Your task to perform on an android device: delete the emails in spam in the gmail app Image 0: 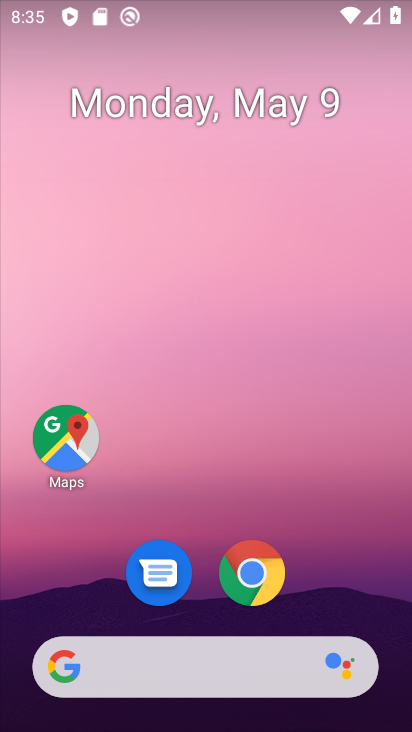
Step 0: drag from (312, 614) to (304, 38)
Your task to perform on an android device: delete the emails in spam in the gmail app Image 1: 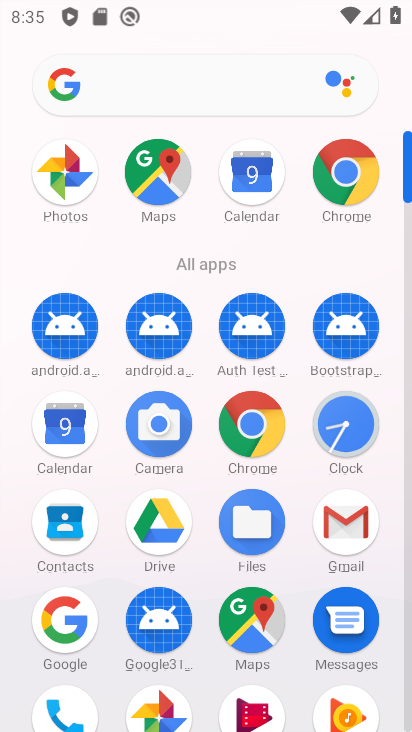
Step 1: click (344, 509)
Your task to perform on an android device: delete the emails in spam in the gmail app Image 2: 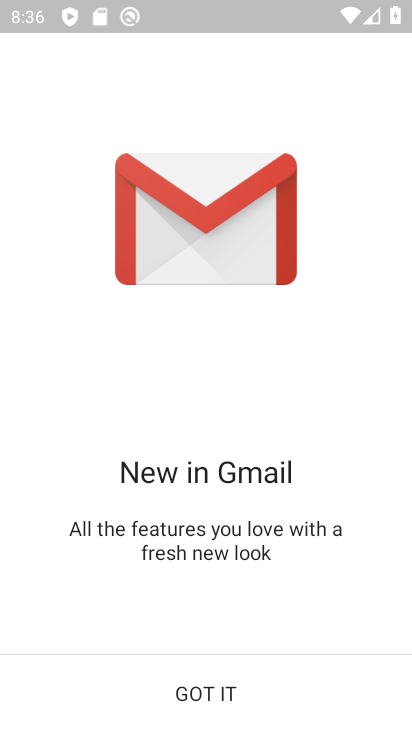
Step 2: click (323, 693)
Your task to perform on an android device: delete the emails in spam in the gmail app Image 3: 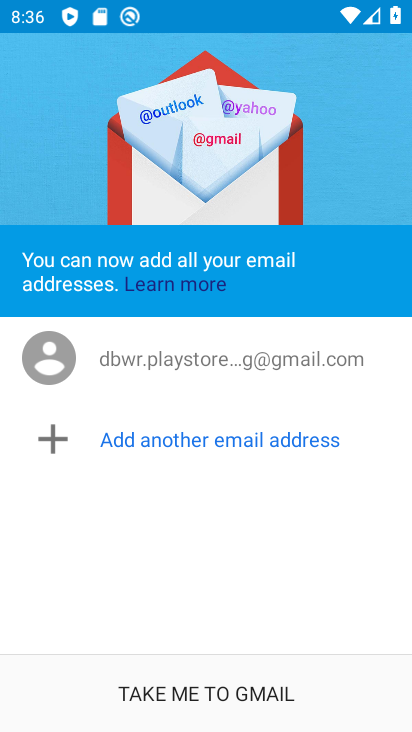
Step 3: click (231, 700)
Your task to perform on an android device: delete the emails in spam in the gmail app Image 4: 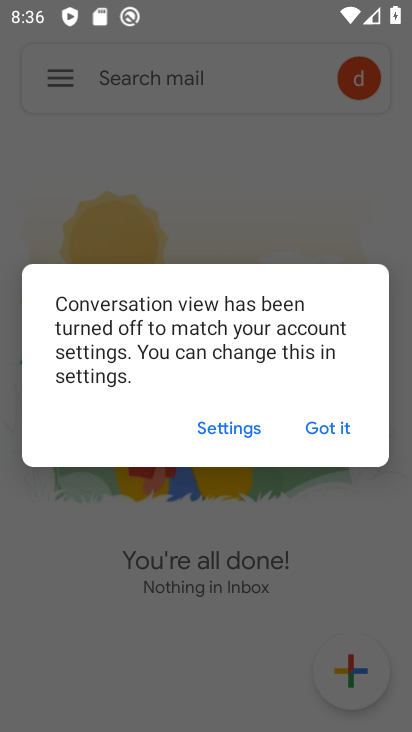
Step 4: click (306, 436)
Your task to perform on an android device: delete the emails in spam in the gmail app Image 5: 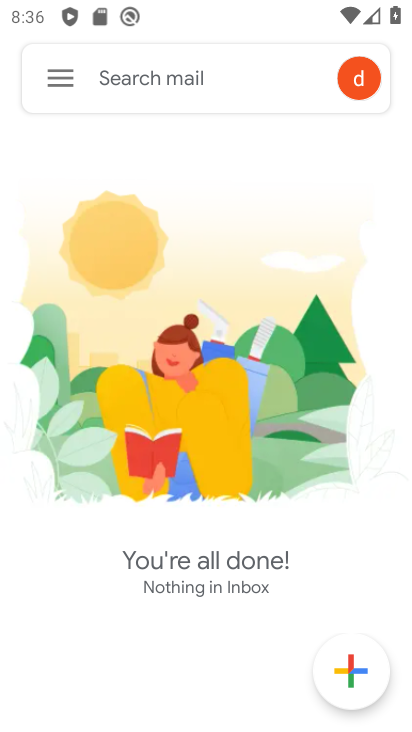
Step 5: click (319, 422)
Your task to perform on an android device: delete the emails in spam in the gmail app Image 6: 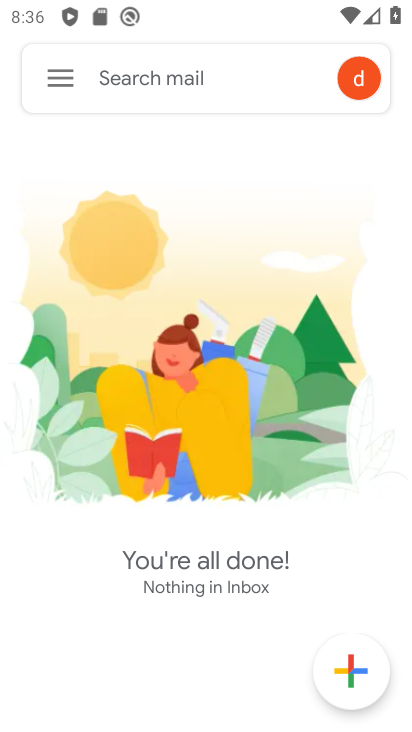
Step 6: click (61, 68)
Your task to perform on an android device: delete the emails in spam in the gmail app Image 7: 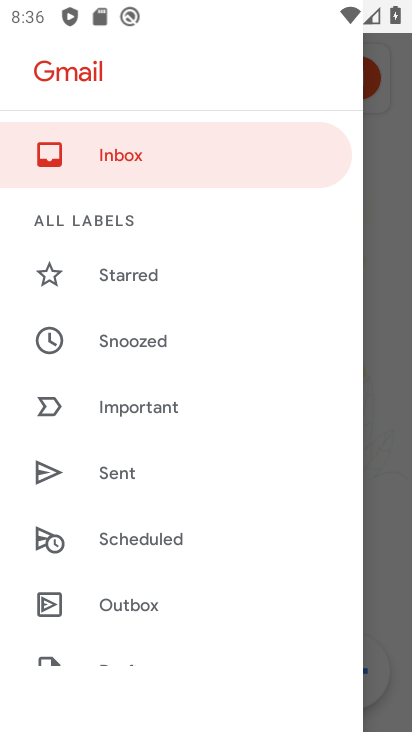
Step 7: drag from (154, 562) to (112, 273)
Your task to perform on an android device: delete the emails in spam in the gmail app Image 8: 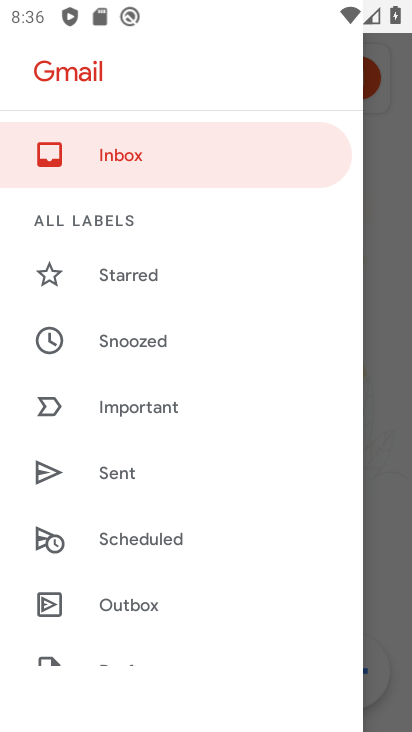
Step 8: drag from (99, 609) to (187, 175)
Your task to perform on an android device: delete the emails in spam in the gmail app Image 9: 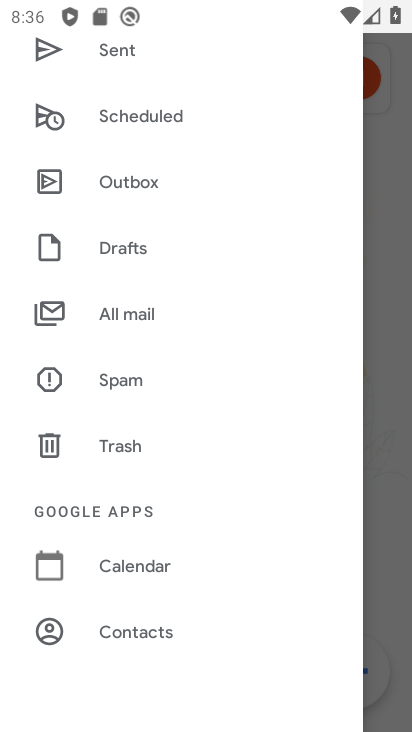
Step 9: click (132, 381)
Your task to perform on an android device: delete the emails in spam in the gmail app Image 10: 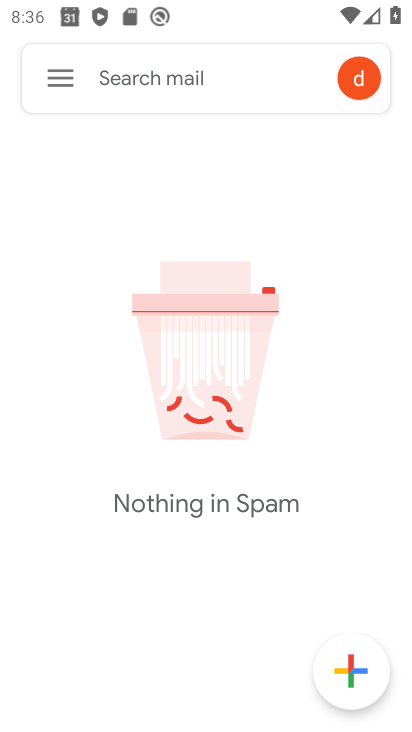
Step 10: task complete